Your task to perform on an android device: turn on translation in the chrome app Image 0: 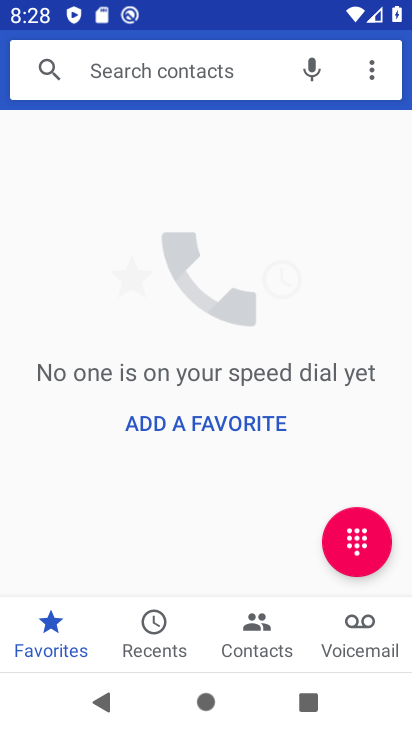
Step 0: press home button
Your task to perform on an android device: turn on translation in the chrome app Image 1: 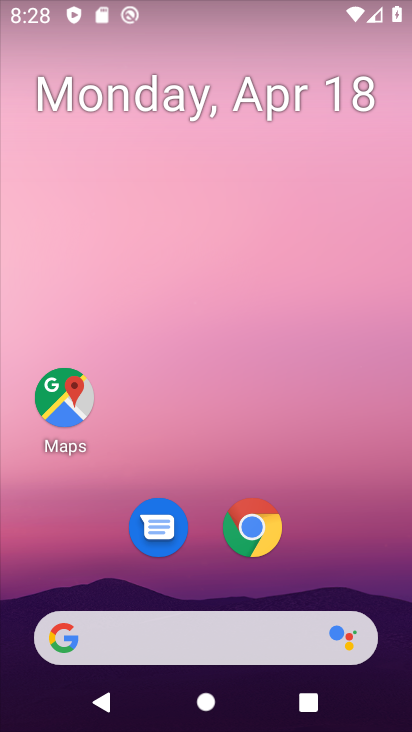
Step 1: drag from (317, 558) to (341, 82)
Your task to perform on an android device: turn on translation in the chrome app Image 2: 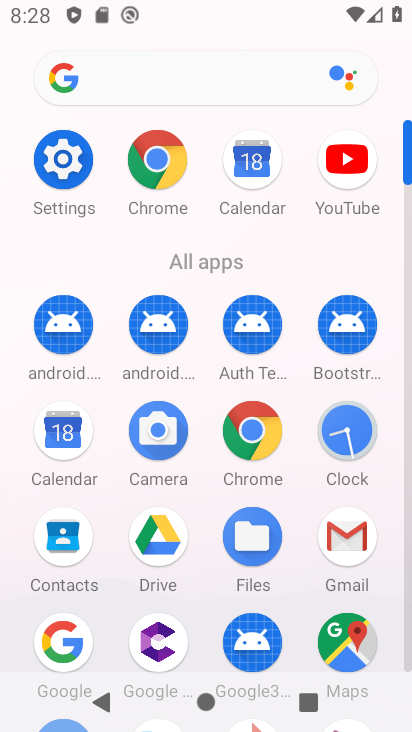
Step 2: click (251, 425)
Your task to perform on an android device: turn on translation in the chrome app Image 3: 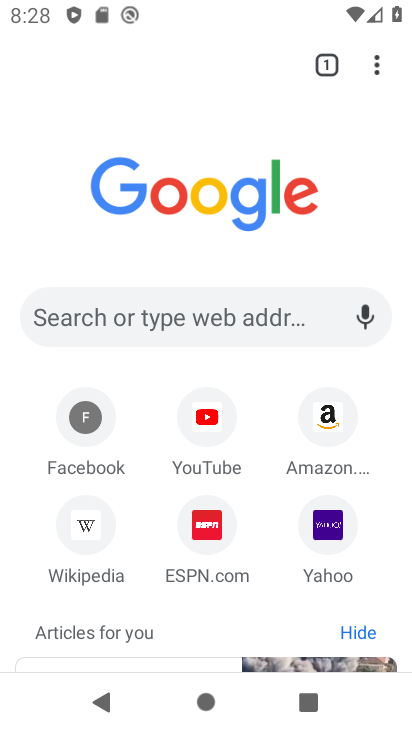
Step 3: drag from (376, 71) to (189, 575)
Your task to perform on an android device: turn on translation in the chrome app Image 4: 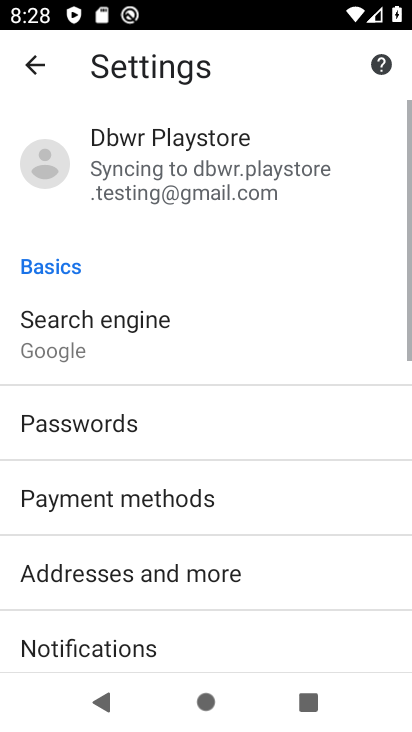
Step 4: drag from (325, 614) to (328, 179)
Your task to perform on an android device: turn on translation in the chrome app Image 5: 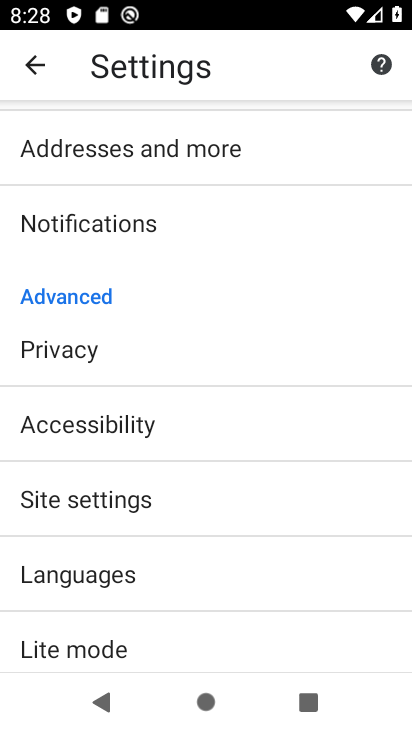
Step 5: click (93, 572)
Your task to perform on an android device: turn on translation in the chrome app Image 6: 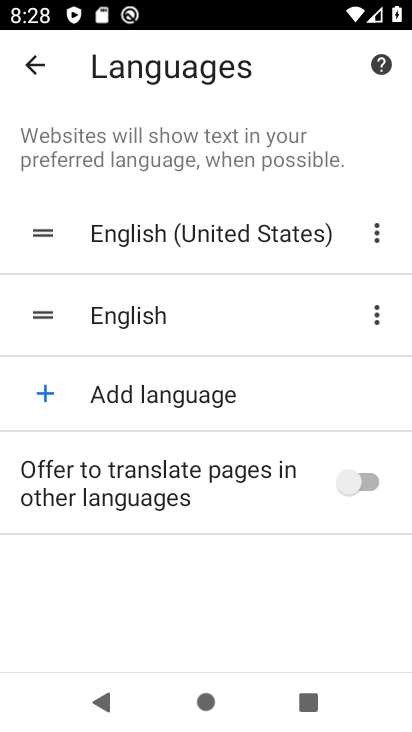
Step 6: click (368, 479)
Your task to perform on an android device: turn on translation in the chrome app Image 7: 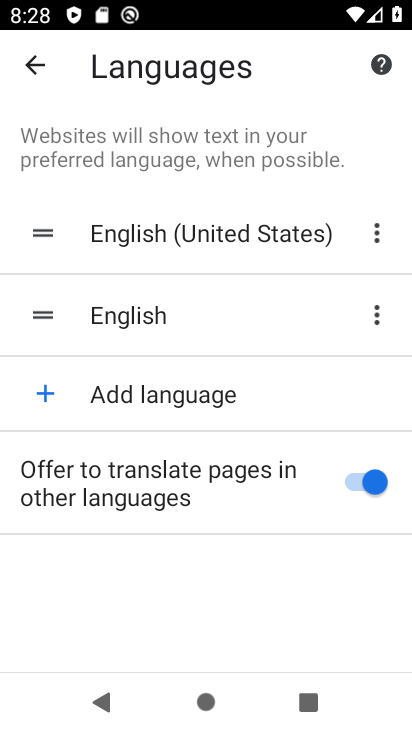
Step 7: task complete